Your task to perform on an android device: What's the news in Brunei? Image 0: 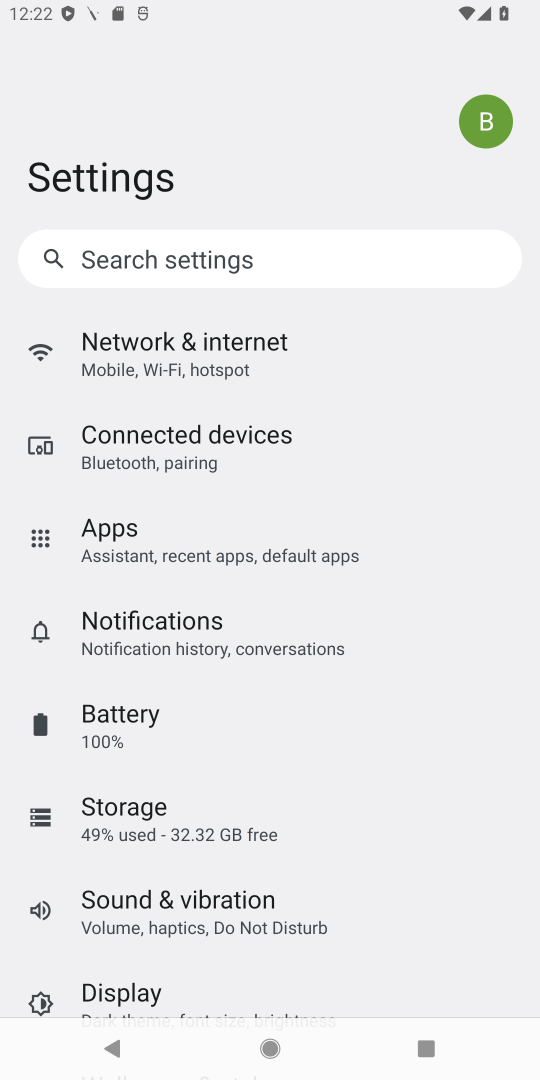
Step 0: press home button
Your task to perform on an android device: What's the news in Brunei? Image 1: 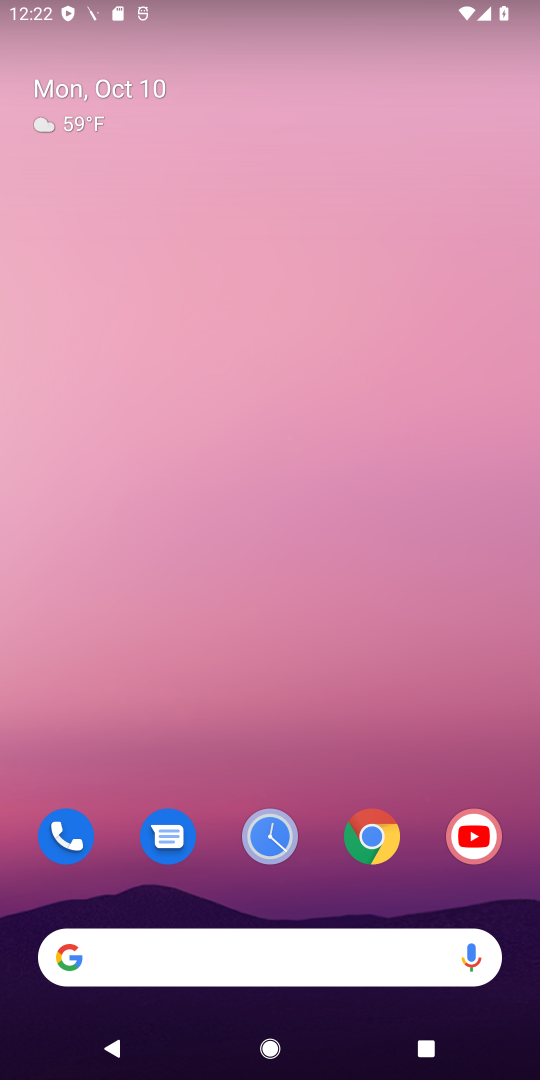
Step 1: click (365, 850)
Your task to perform on an android device: What's the news in Brunei? Image 2: 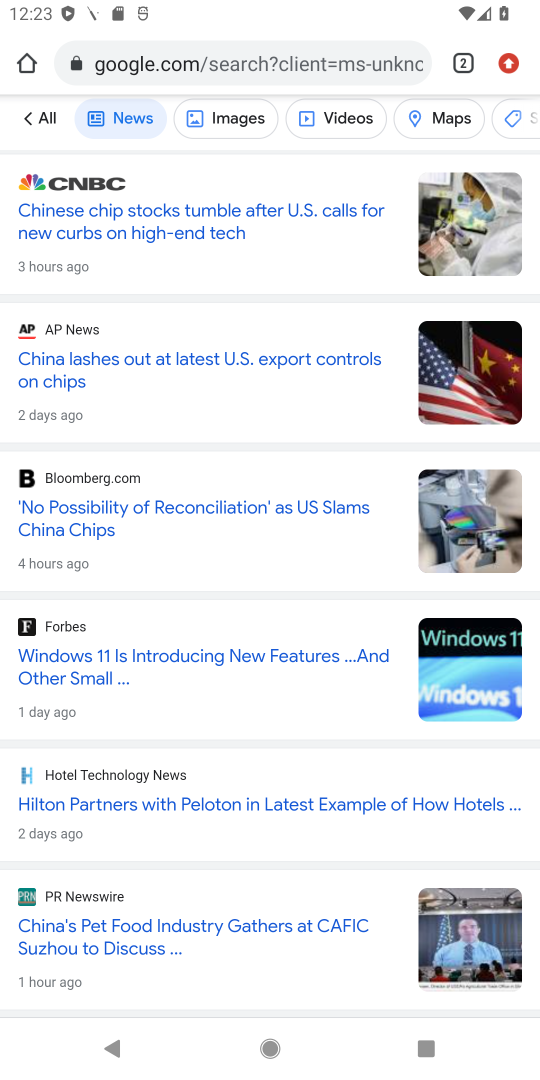
Step 2: click (344, 67)
Your task to perform on an android device: What's the news in Brunei? Image 3: 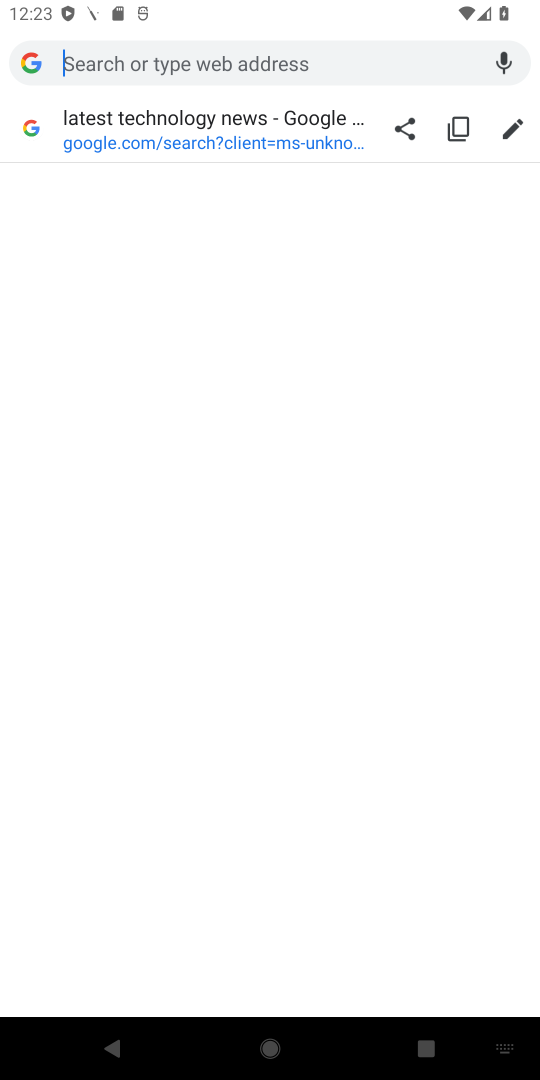
Step 3: type "news in Brunei"
Your task to perform on an android device: What's the news in Brunei? Image 4: 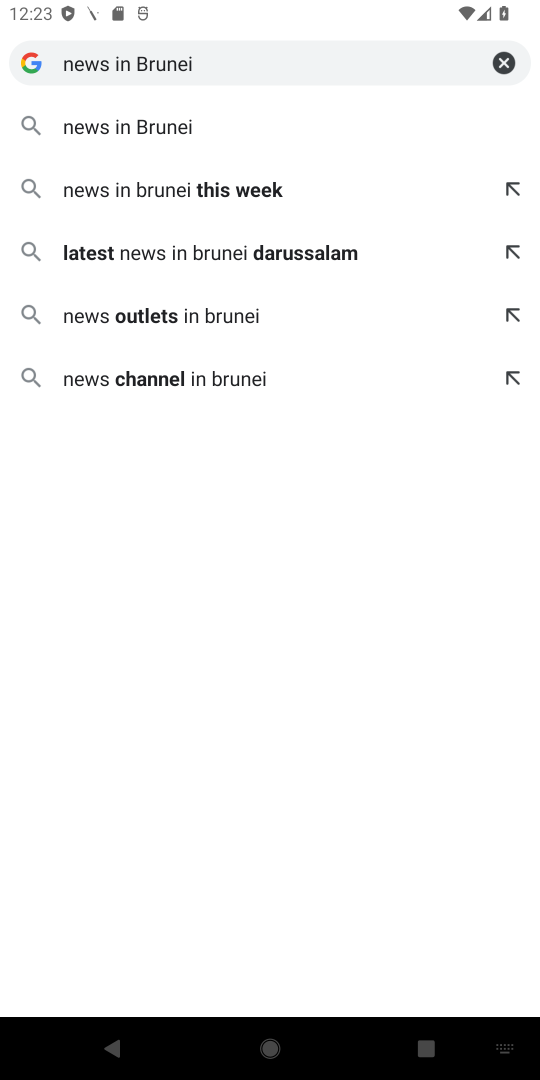
Step 4: click (263, 109)
Your task to perform on an android device: What's the news in Brunei? Image 5: 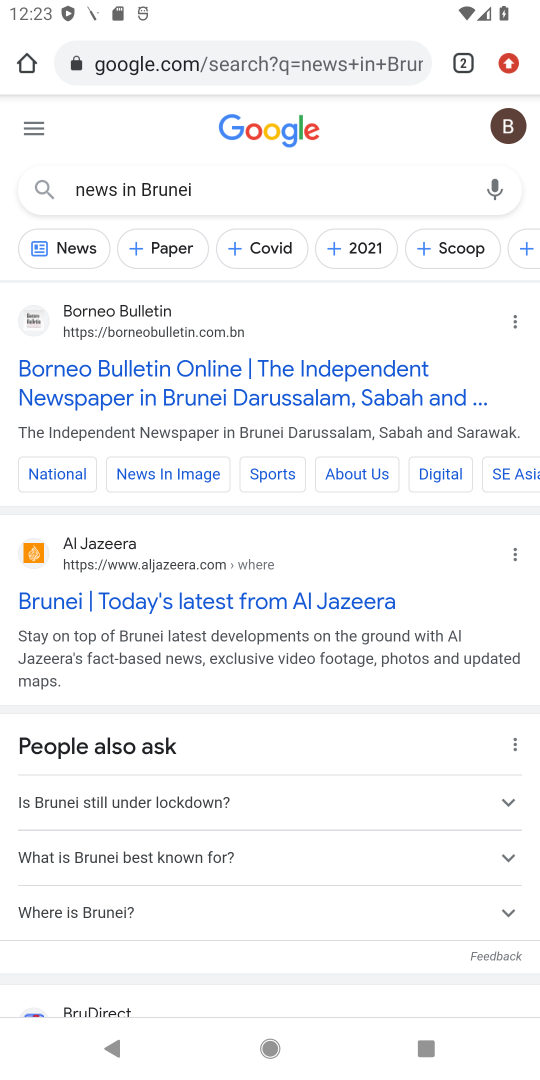
Step 5: click (63, 255)
Your task to perform on an android device: What's the news in Brunei? Image 6: 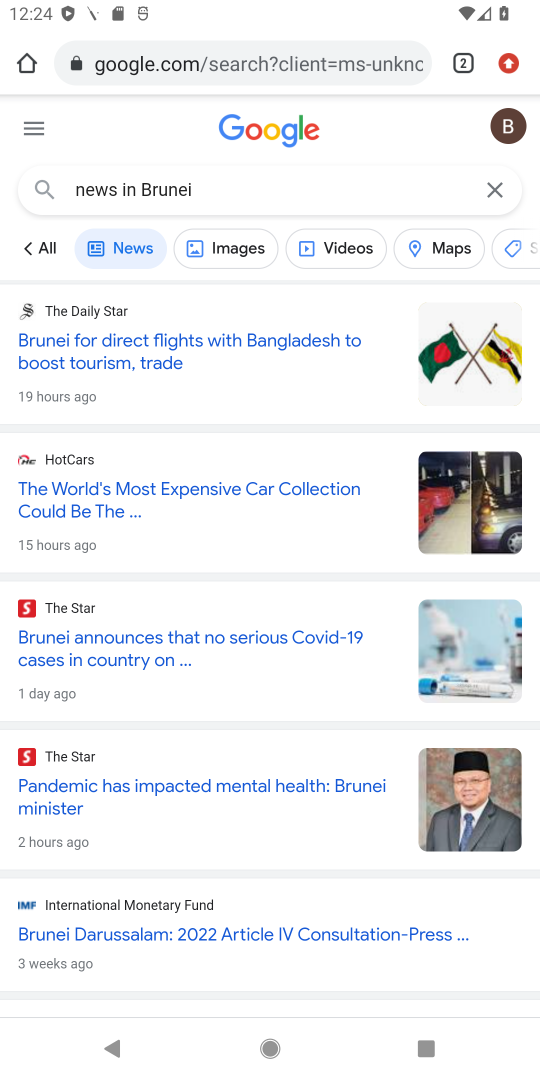
Step 6: task complete